Your task to perform on an android device: Open Yahoo.com Image 0: 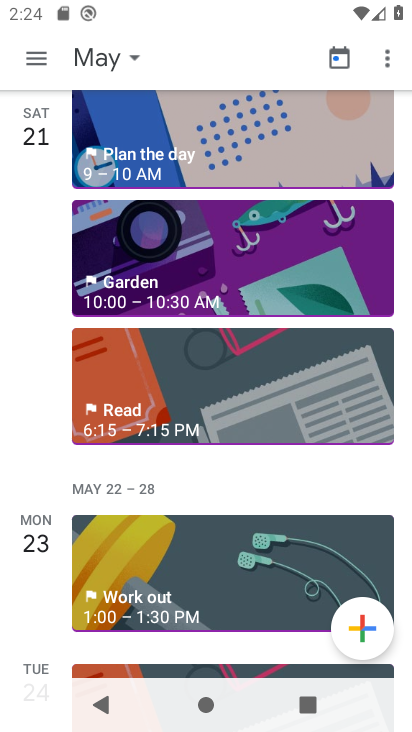
Step 0: press home button
Your task to perform on an android device: Open Yahoo.com Image 1: 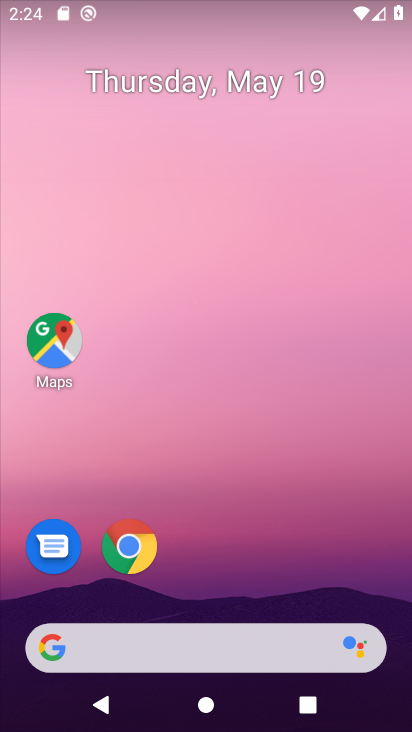
Step 1: drag from (229, 606) to (218, 8)
Your task to perform on an android device: Open Yahoo.com Image 2: 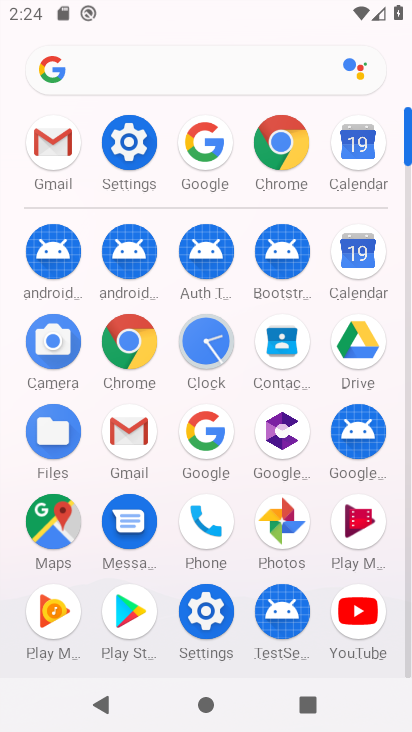
Step 2: click (277, 134)
Your task to perform on an android device: Open Yahoo.com Image 3: 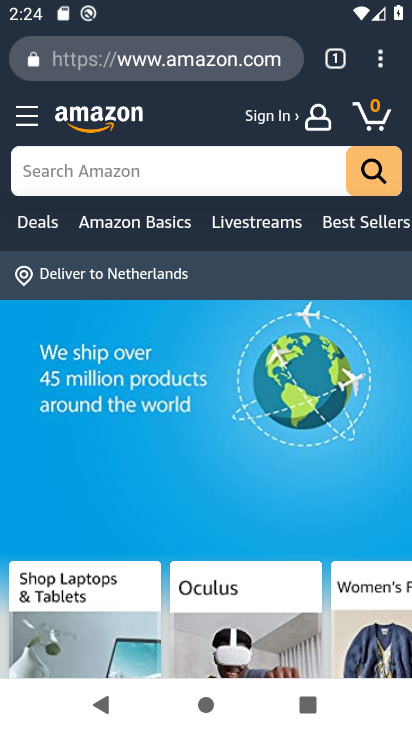
Step 3: click (385, 54)
Your task to perform on an android device: Open Yahoo.com Image 4: 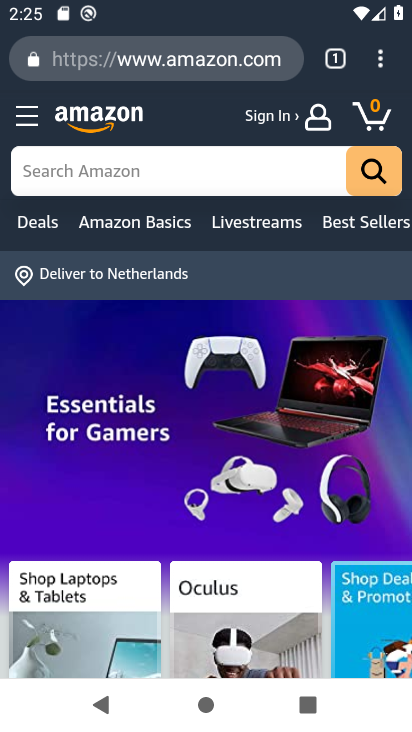
Step 4: click (378, 56)
Your task to perform on an android device: Open Yahoo.com Image 5: 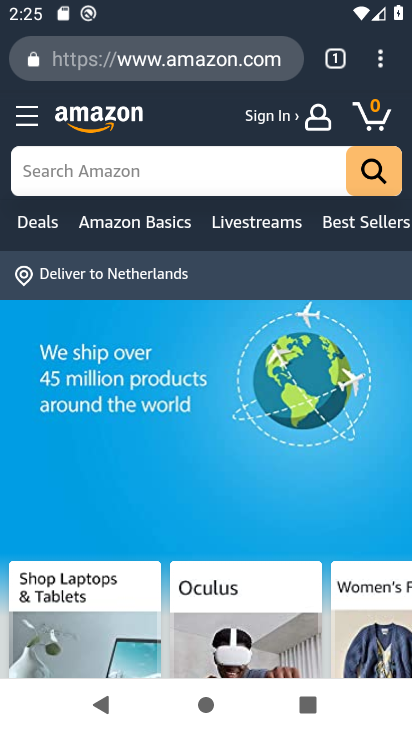
Step 5: click (381, 58)
Your task to perform on an android device: Open Yahoo.com Image 6: 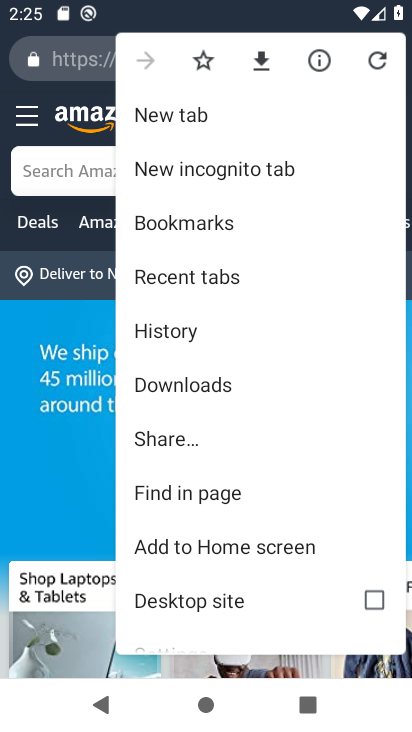
Step 6: drag from (270, 594) to (302, 154)
Your task to perform on an android device: Open Yahoo.com Image 7: 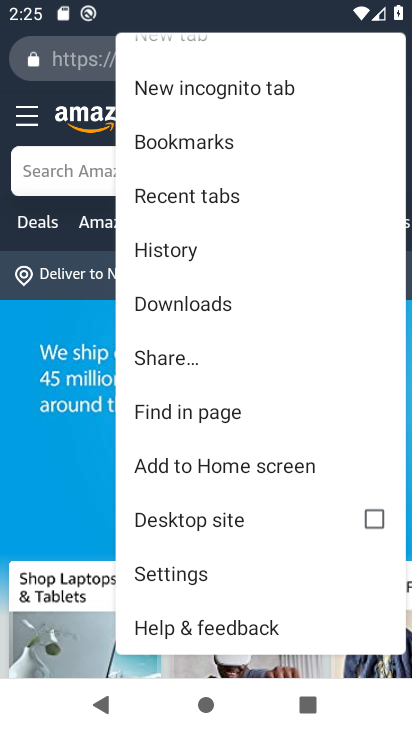
Step 7: click (61, 288)
Your task to perform on an android device: Open Yahoo.com Image 8: 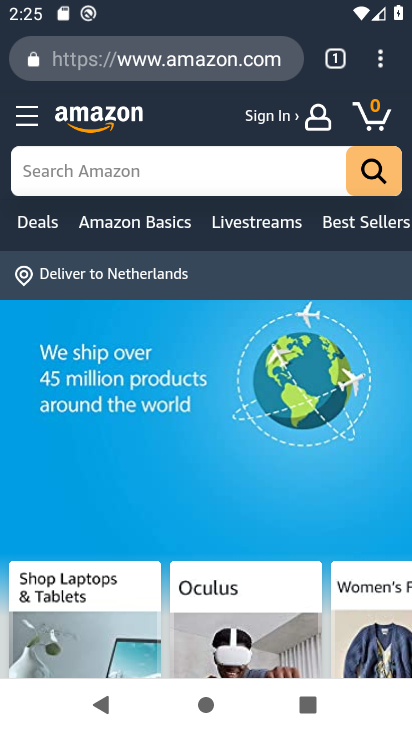
Step 8: click (334, 54)
Your task to perform on an android device: Open Yahoo.com Image 9: 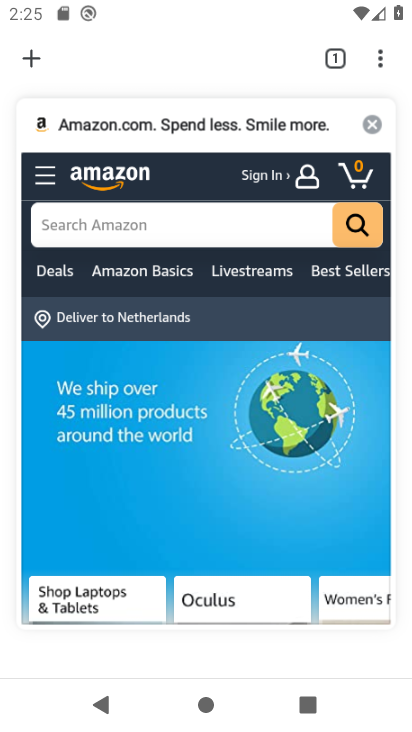
Step 9: click (39, 54)
Your task to perform on an android device: Open Yahoo.com Image 10: 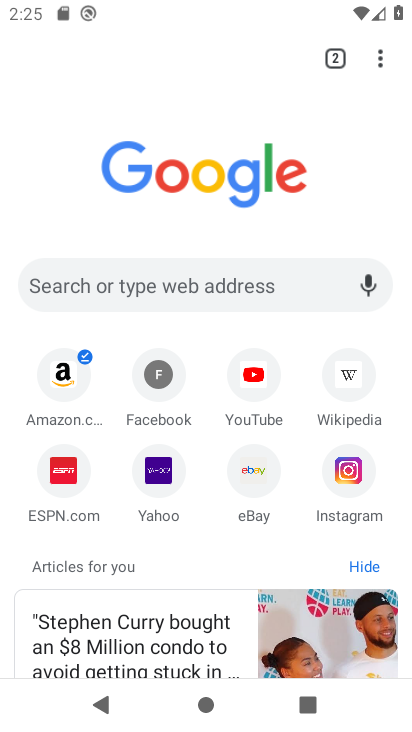
Step 10: click (154, 460)
Your task to perform on an android device: Open Yahoo.com Image 11: 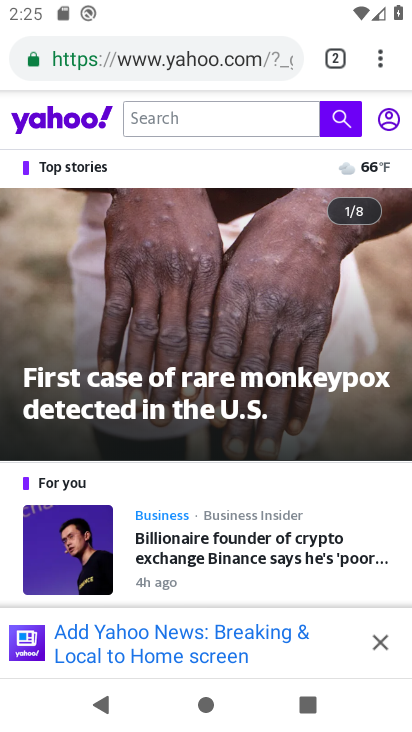
Step 11: task complete